Your task to perform on an android device: clear history in the chrome app Image 0: 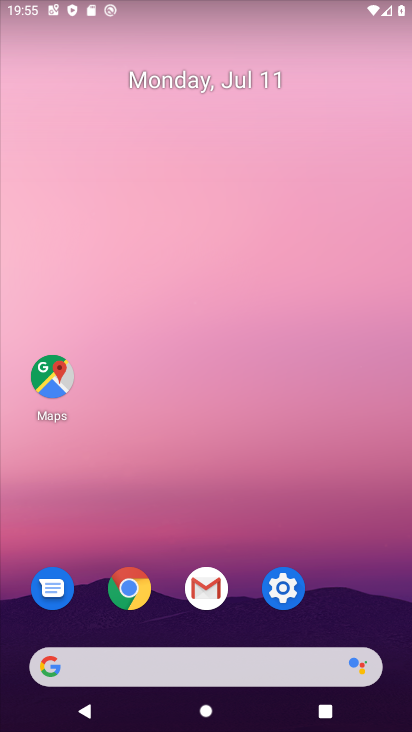
Step 0: drag from (256, 692) to (196, 167)
Your task to perform on an android device: clear history in the chrome app Image 1: 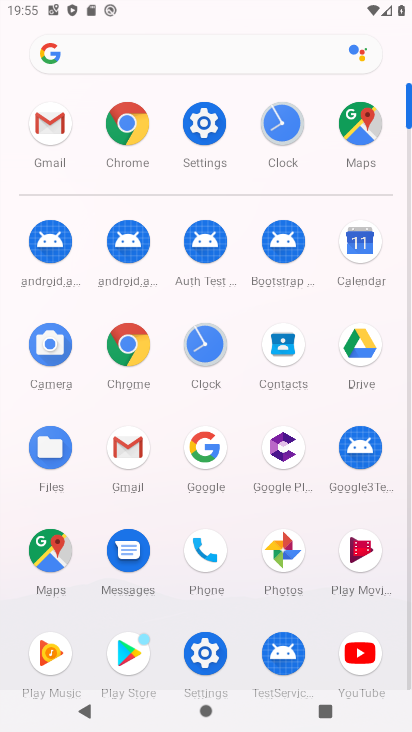
Step 1: click (123, 149)
Your task to perform on an android device: clear history in the chrome app Image 2: 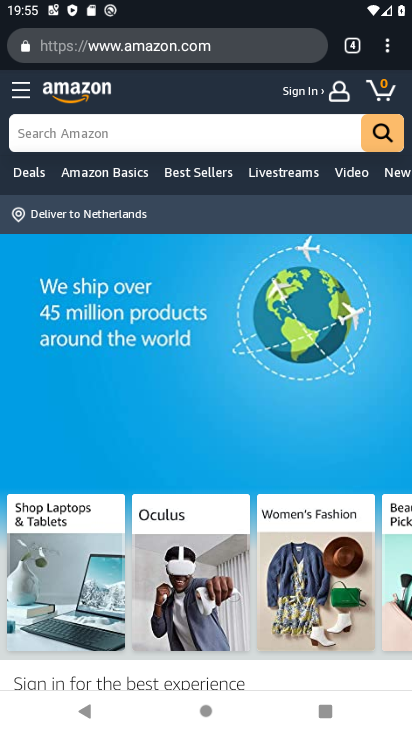
Step 2: click (387, 47)
Your task to perform on an android device: clear history in the chrome app Image 3: 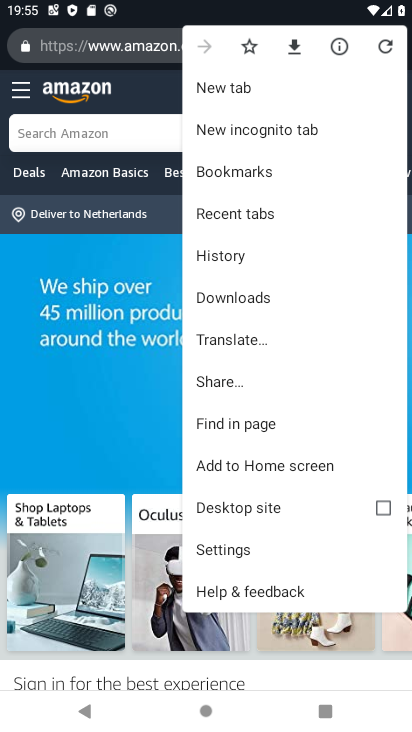
Step 3: click (236, 248)
Your task to perform on an android device: clear history in the chrome app Image 4: 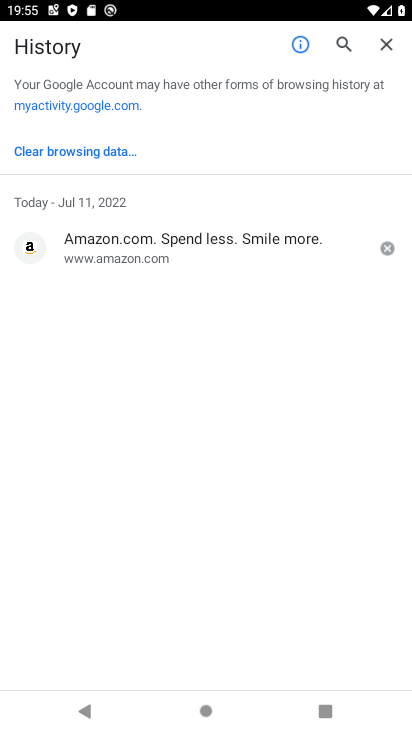
Step 4: click (89, 156)
Your task to perform on an android device: clear history in the chrome app Image 5: 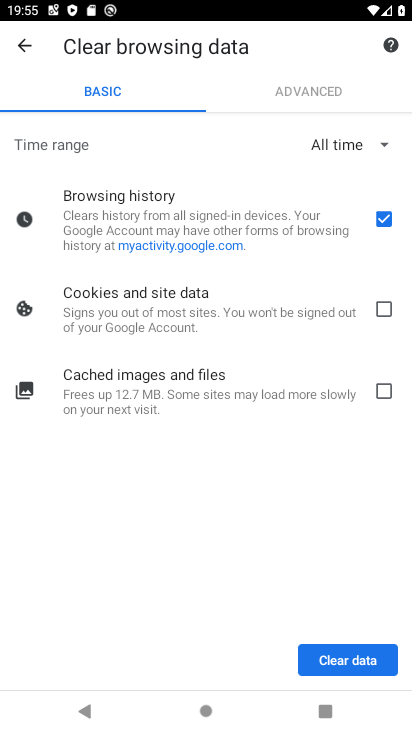
Step 5: click (328, 650)
Your task to perform on an android device: clear history in the chrome app Image 6: 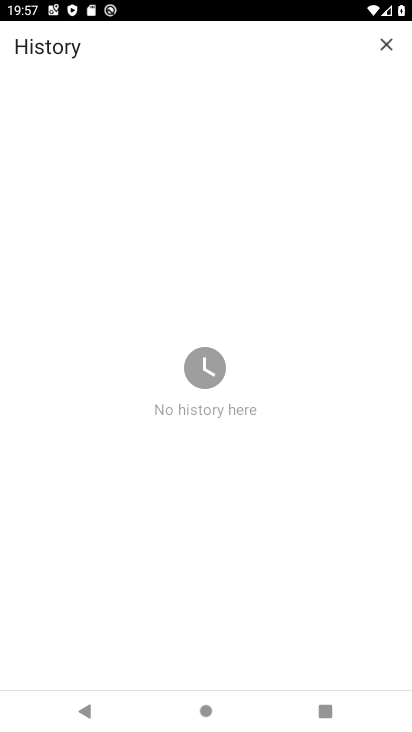
Step 6: task complete